Your task to perform on an android device: Open eBay Image 0: 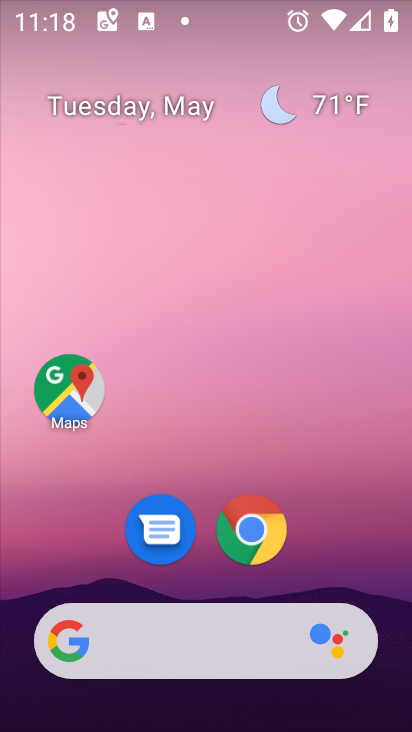
Step 0: drag from (280, 600) to (238, 219)
Your task to perform on an android device: Open eBay Image 1: 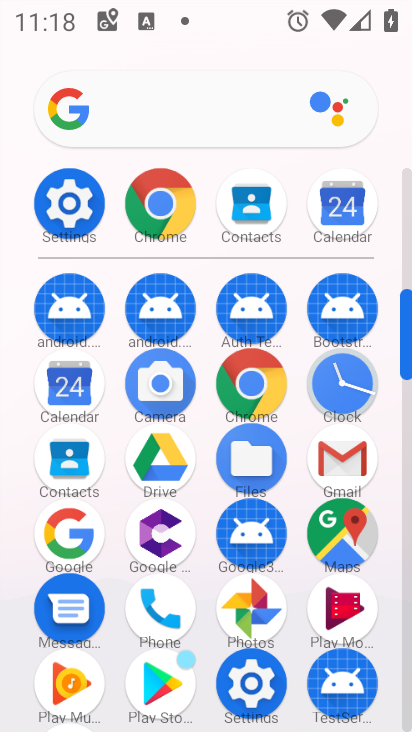
Step 1: click (152, 197)
Your task to perform on an android device: Open eBay Image 2: 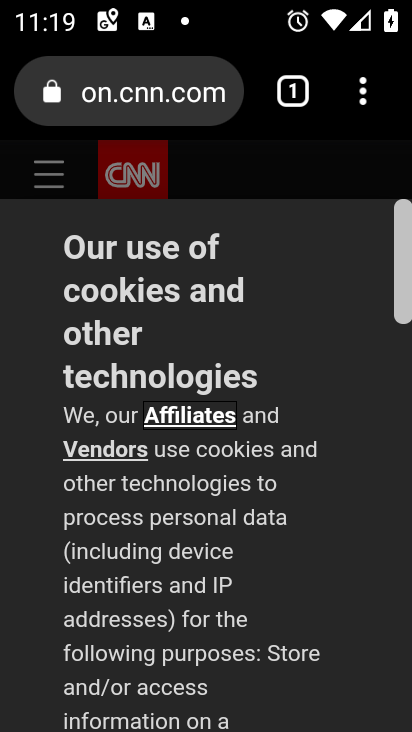
Step 2: click (191, 96)
Your task to perform on an android device: Open eBay Image 3: 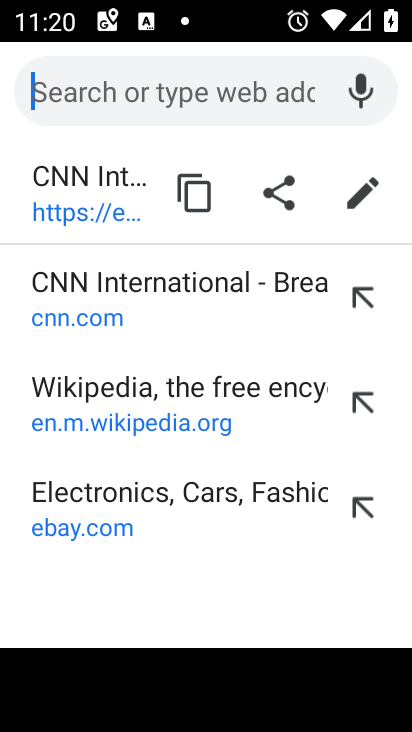
Step 3: click (189, 496)
Your task to perform on an android device: Open eBay Image 4: 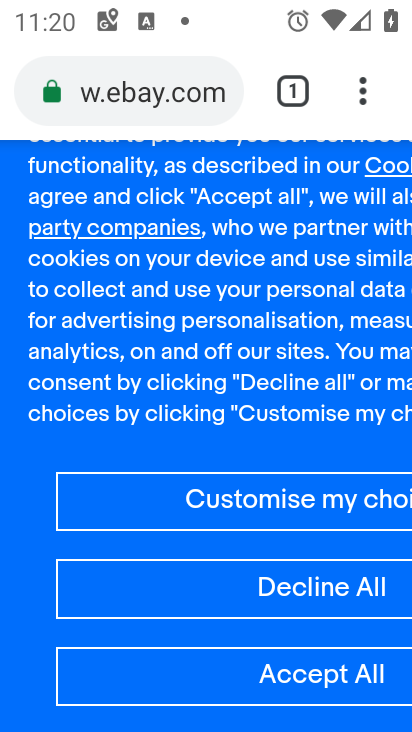
Step 4: task complete